Your task to perform on an android device: toggle translation in the chrome app Image 0: 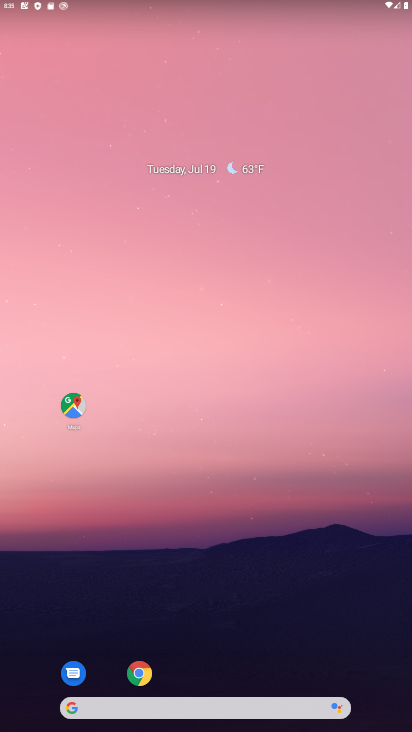
Step 0: click (141, 666)
Your task to perform on an android device: toggle translation in the chrome app Image 1: 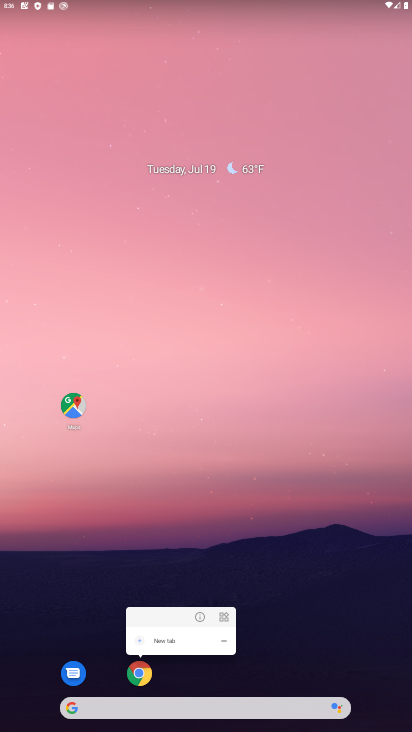
Step 1: click (141, 684)
Your task to perform on an android device: toggle translation in the chrome app Image 2: 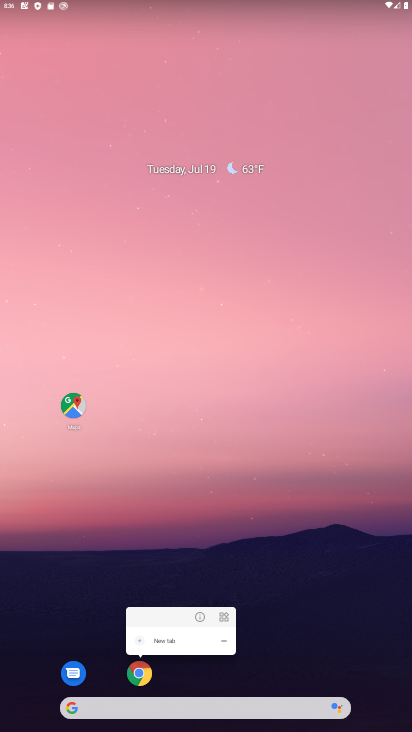
Step 2: click (140, 676)
Your task to perform on an android device: toggle translation in the chrome app Image 3: 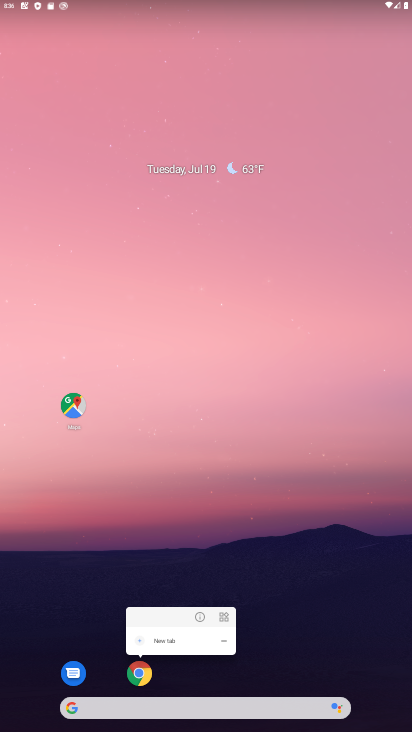
Step 3: click (142, 675)
Your task to perform on an android device: toggle translation in the chrome app Image 4: 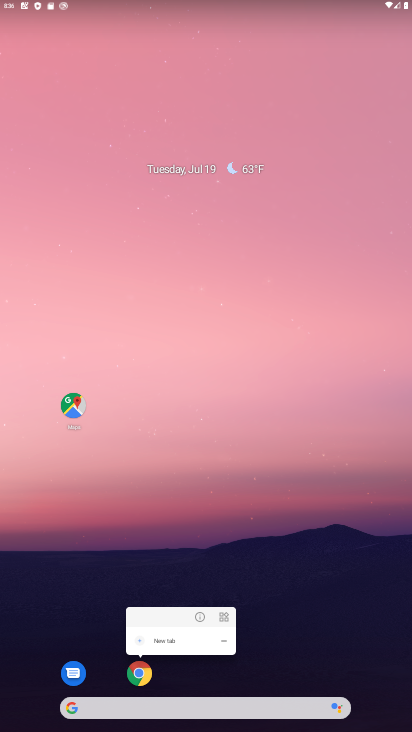
Step 4: click (148, 674)
Your task to perform on an android device: toggle translation in the chrome app Image 5: 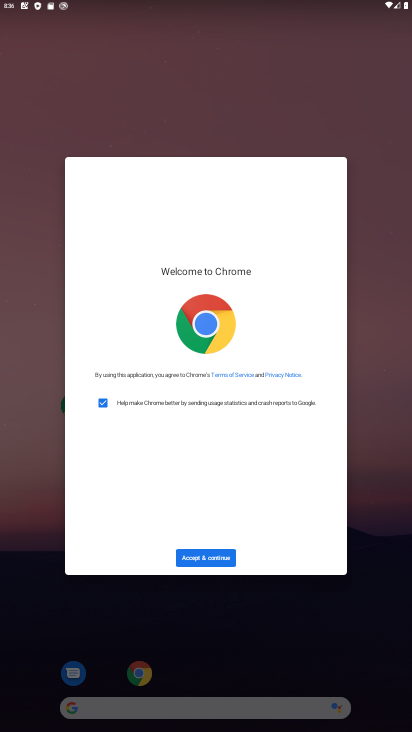
Step 5: click (206, 558)
Your task to perform on an android device: toggle translation in the chrome app Image 6: 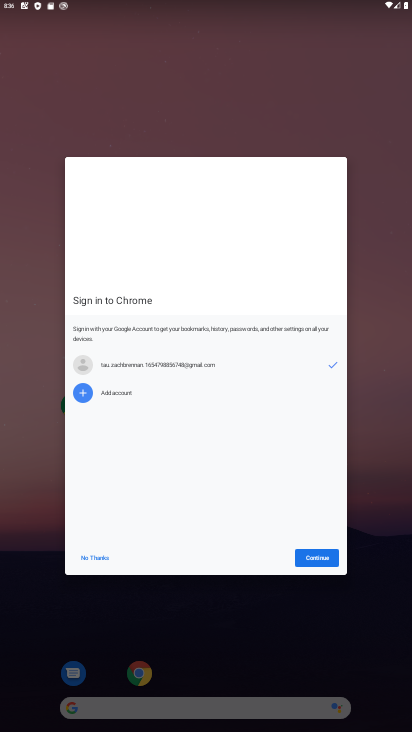
Step 6: click (327, 562)
Your task to perform on an android device: toggle translation in the chrome app Image 7: 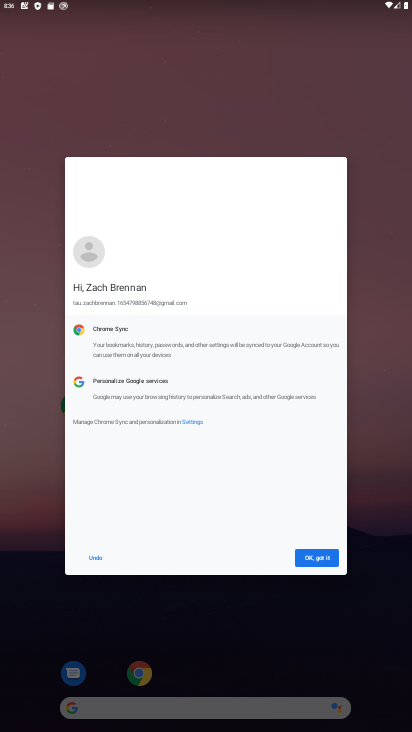
Step 7: click (327, 560)
Your task to perform on an android device: toggle translation in the chrome app Image 8: 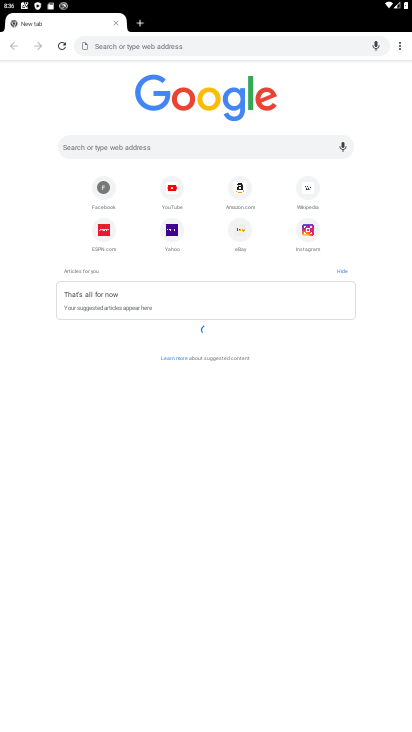
Step 8: drag from (400, 41) to (368, 212)
Your task to perform on an android device: toggle translation in the chrome app Image 9: 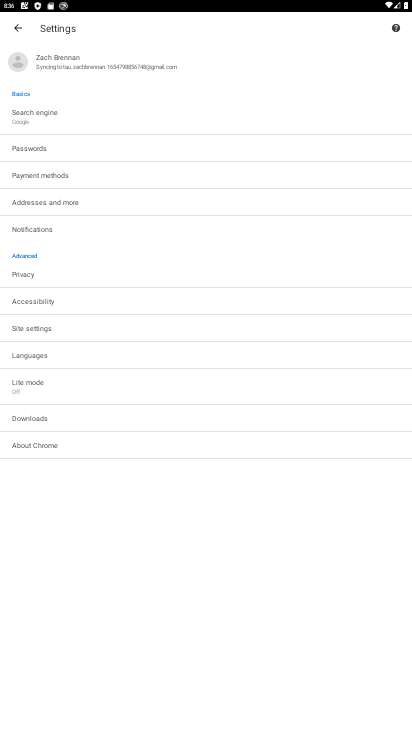
Step 9: click (66, 364)
Your task to perform on an android device: toggle translation in the chrome app Image 10: 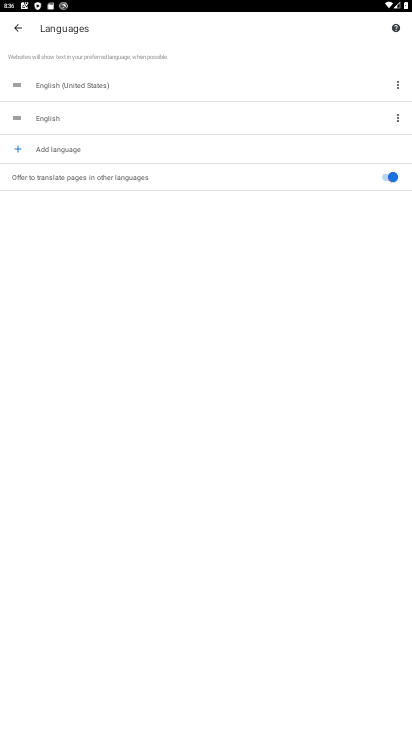
Step 10: click (380, 179)
Your task to perform on an android device: toggle translation in the chrome app Image 11: 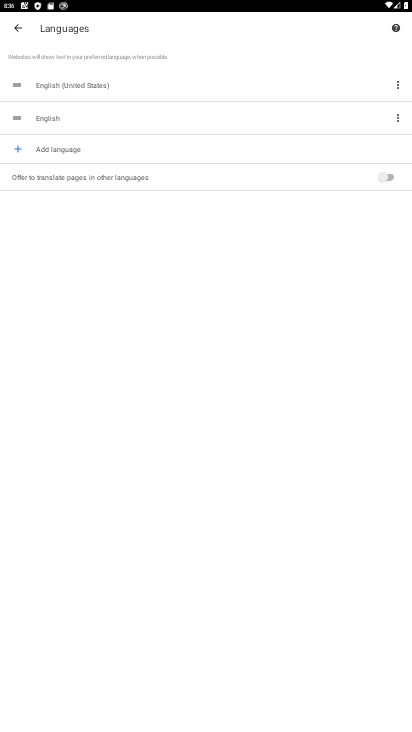
Step 11: task complete